Your task to perform on an android device: allow notifications from all sites in the chrome app Image 0: 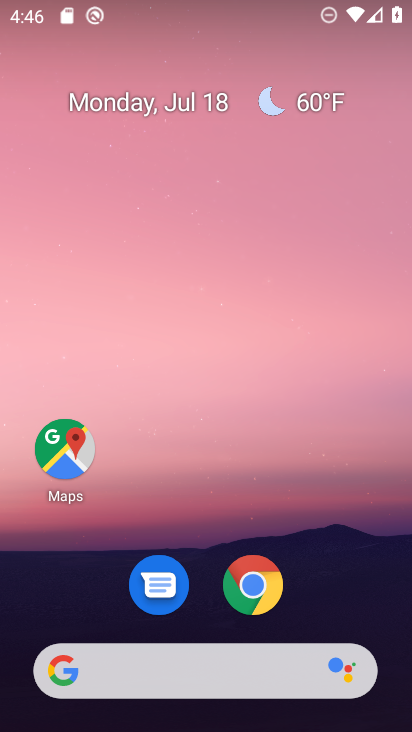
Step 0: drag from (353, 567) to (360, 121)
Your task to perform on an android device: allow notifications from all sites in the chrome app Image 1: 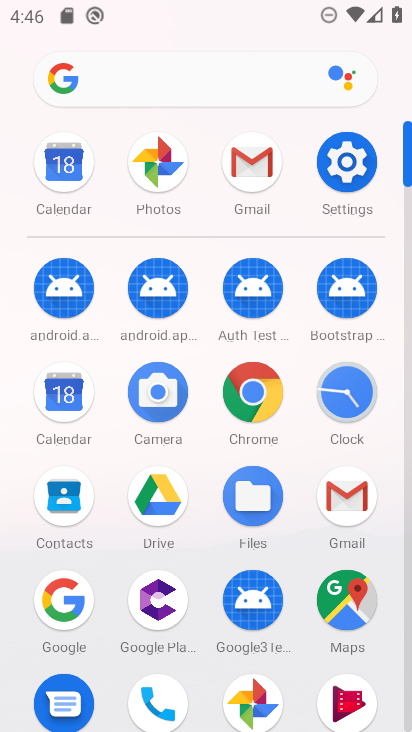
Step 1: click (258, 398)
Your task to perform on an android device: allow notifications from all sites in the chrome app Image 2: 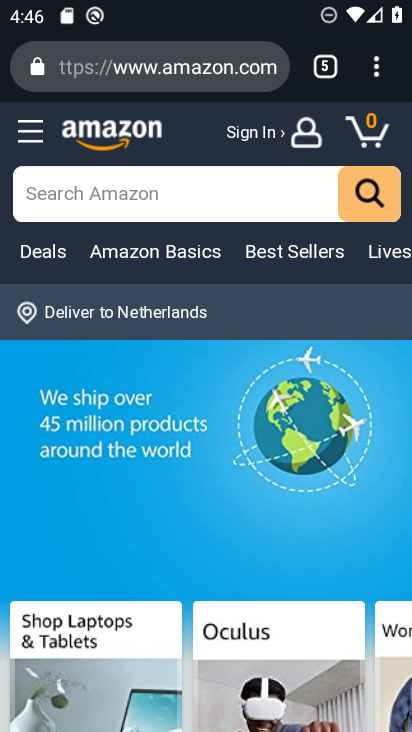
Step 2: click (374, 72)
Your task to perform on an android device: allow notifications from all sites in the chrome app Image 3: 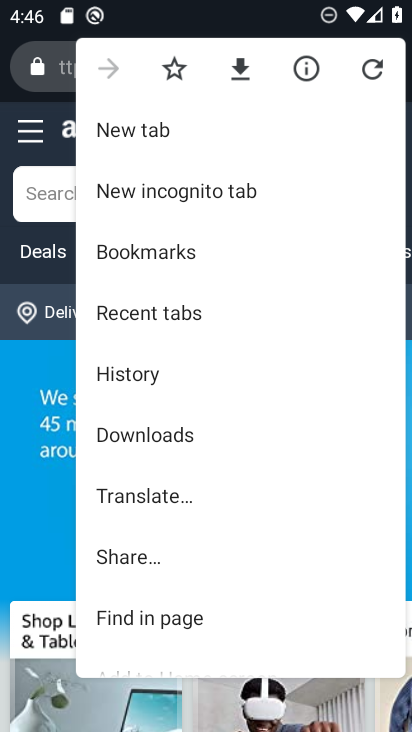
Step 3: drag from (247, 484) to (263, 218)
Your task to perform on an android device: allow notifications from all sites in the chrome app Image 4: 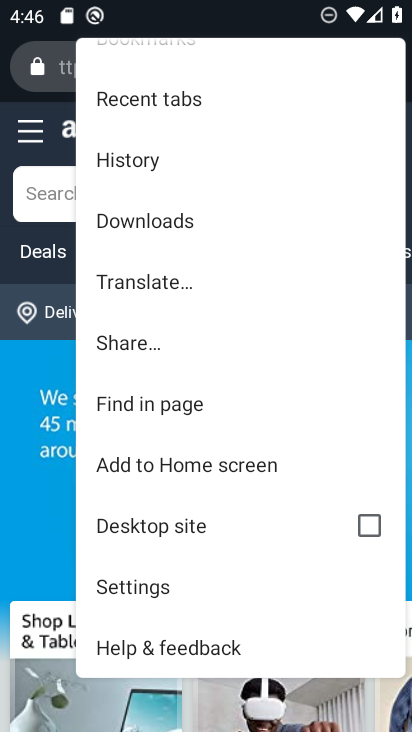
Step 4: click (149, 578)
Your task to perform on an android device: allow notifications from all sites in the chrome app Image 5: 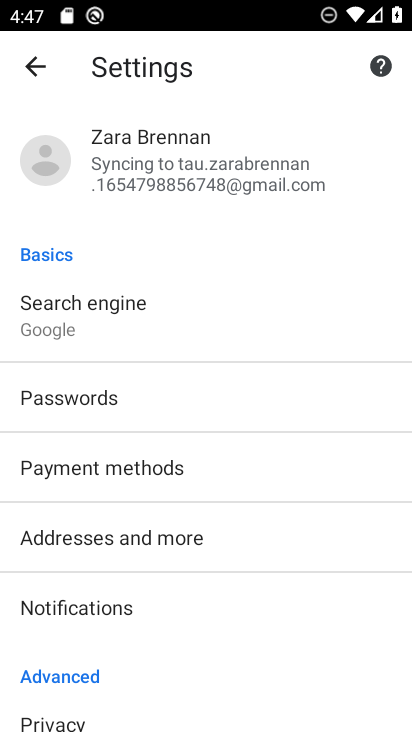
Step 5: click (156, 596)
Your task to perform on an android device: allow notifications from all sites in the chrome app Image 6: 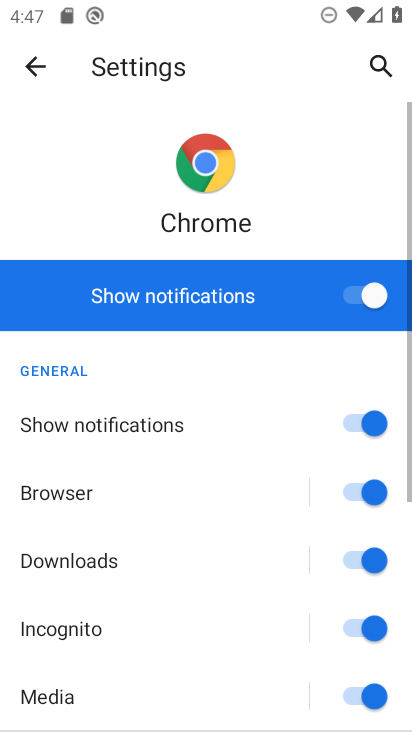
Step 6: task complete